Your task to perform on an android device: Turn off the flashlight Image 0: 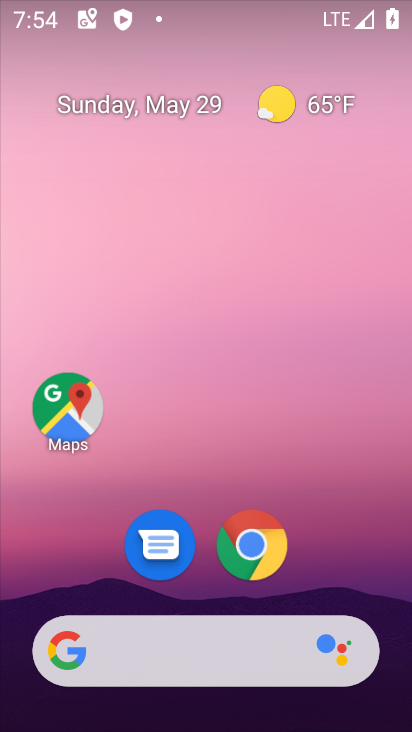
Step 0: drag from (194, 575) to (265, 266)
Your task to perform on an android device: Turn off the flashlight Image 1: 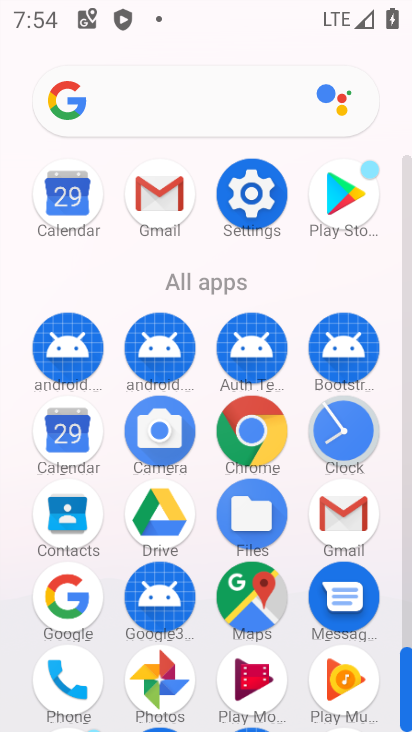
Step 1: click (252, 194)
Your task to perform on an android device: Turn off the flashlight Image 2: 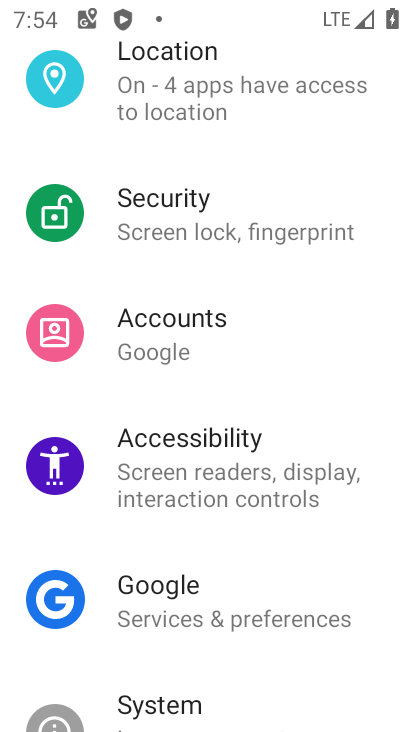
Step 2: drag from (225, 319) to (196, 604)
Your task to perform on an android device: Turn off the flashlight Image 3: 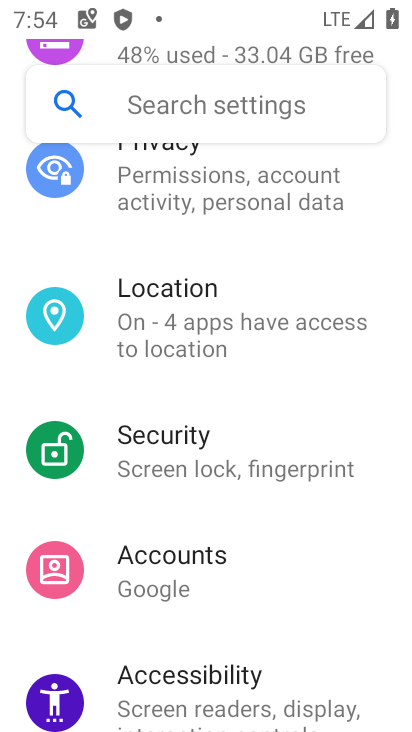
Step 3: drag from (218, 307) to (195, 686)
Your task to perform on an android device: Turn off the flashlight Image 4: 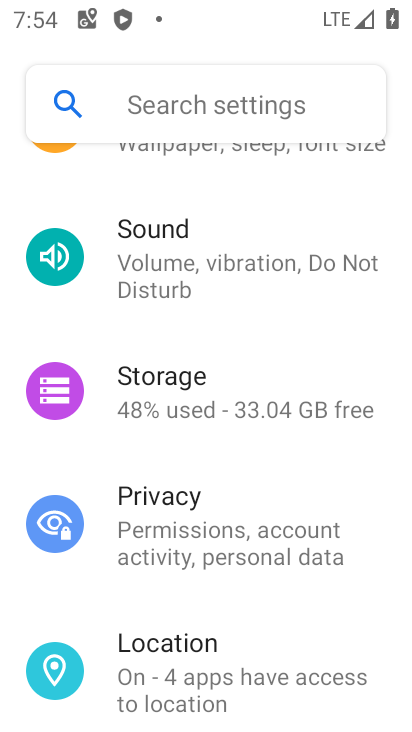
Step 4: drag from (246, 232) to (242, 565)
Your task to perform on an android device: Turn off the flashlight Image 5: 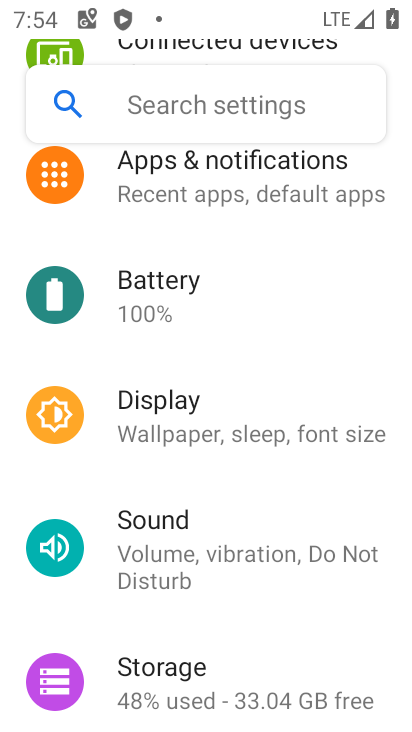
Step 5: click (252, 406)
Your task to perform on an android device: Turn off the flashlight Image 6: 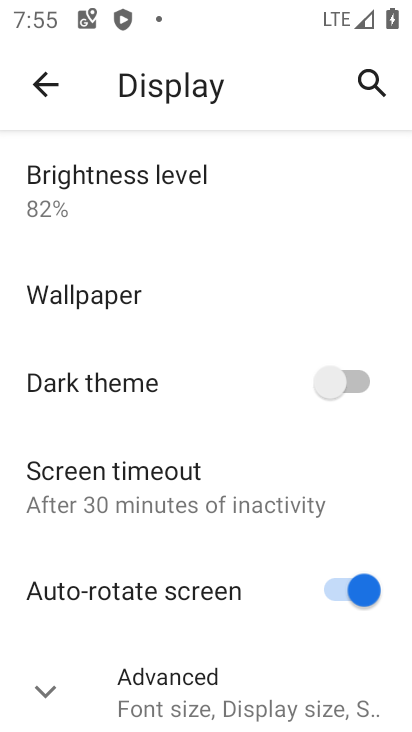
Step 6: task complete